Your task to perform on an android device: Open the Play Movies app and select the watchlist tab. Image 0: 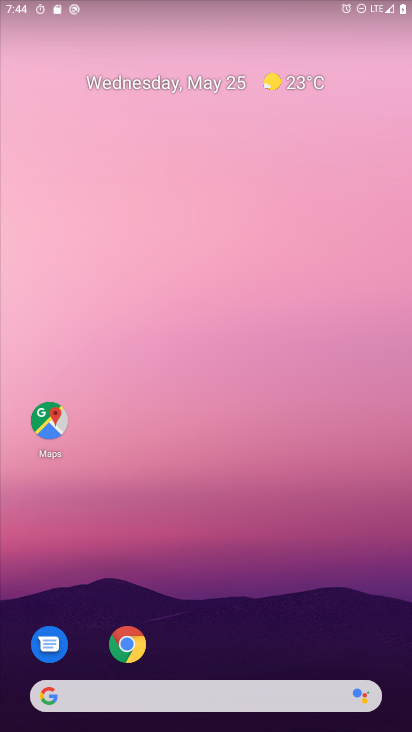
Step 0: drag from (351, 640) to (320, 46)
Your task to perform on an android device: Open the Play Movies app and select the watchlist tab. Image 1: 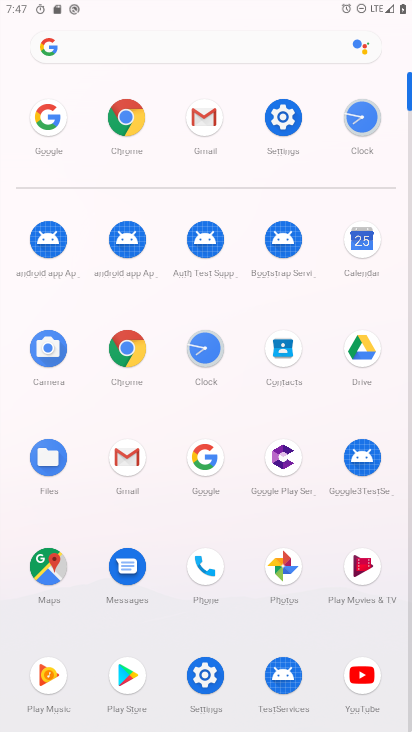
Step 1: click (361, 590)
Your task to perform on an android device: Open the Play Movies app and select the watchlist tab. Image 2: 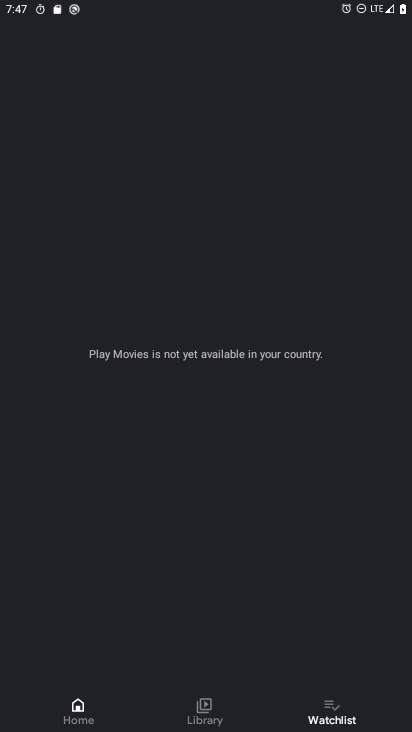
Step 2: task complete